Your task to perform on an android device: set the timer Image 0: 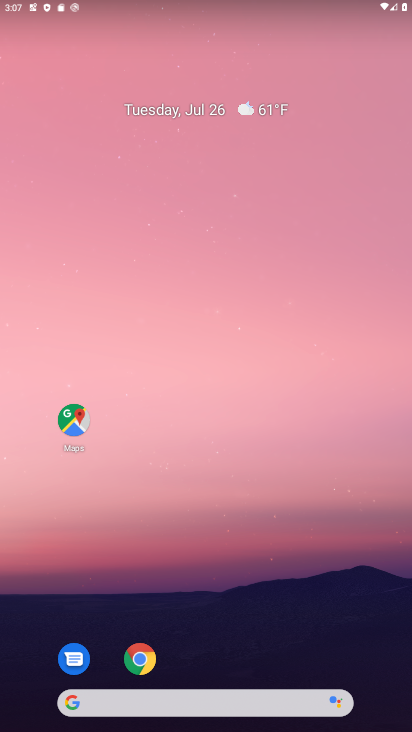
Step 0: drag from (201, 544) to (229, 185)
Your task to perform on an android device: set the timer Image 1: 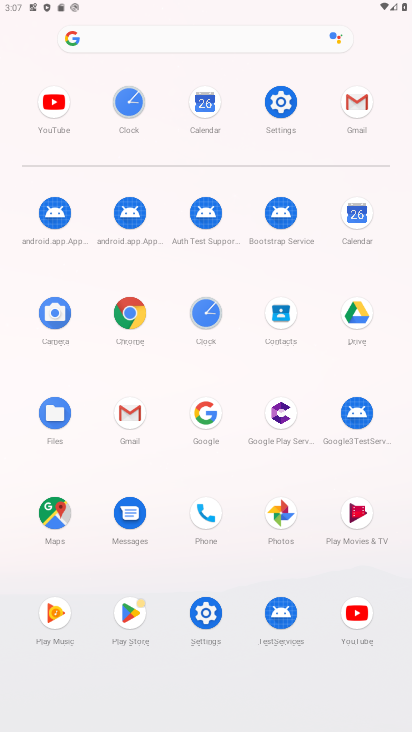
Step 1: click (131, 107)
Your task to perform on an android device: set the timer Image 2: 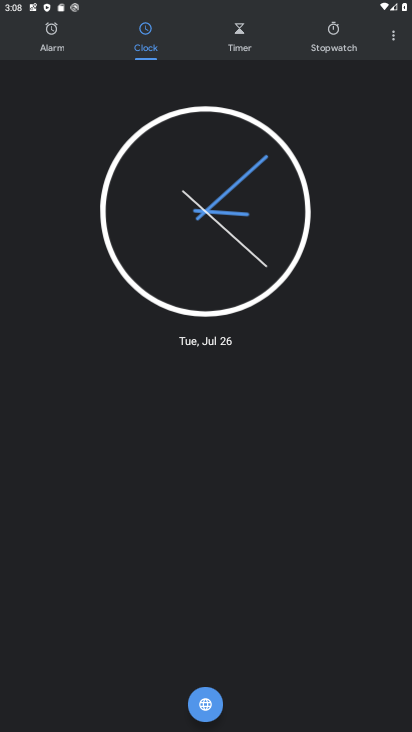
Step 2: click (233, 42)
Your task to perform on an android device: set the timer Image 3: 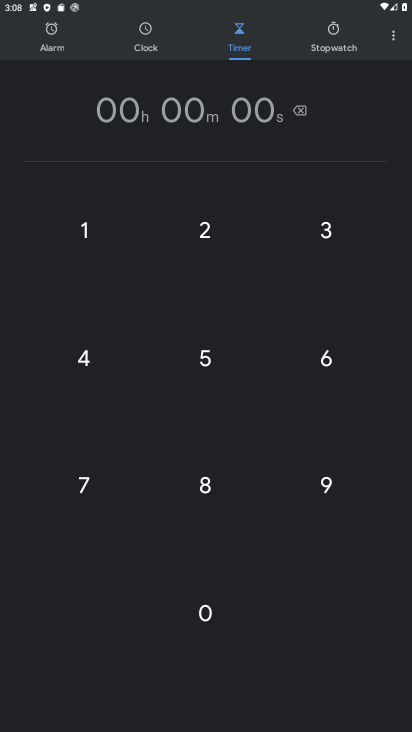
Step 3: click (205, 222)
Your task to perform on an android device: set the timer Image 4: 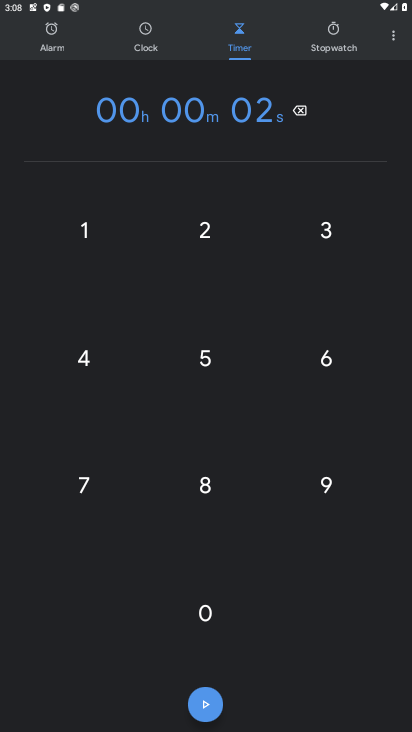
Step 4: click (203, 610)
Your task to perform on an android device: set the timer Image 5: 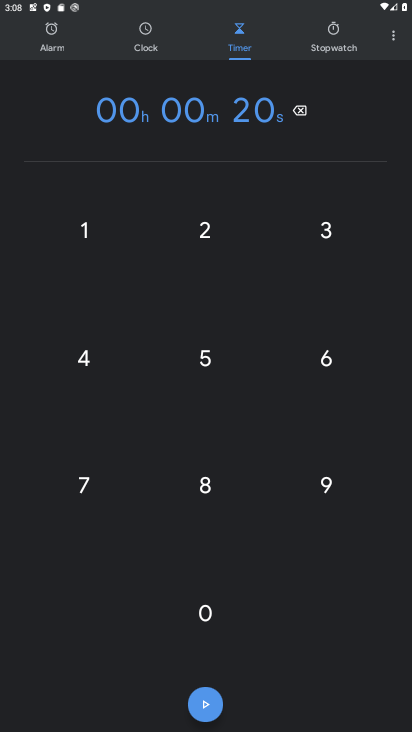
Step 5: click (203, 610)
Your task to perform on an android device: set the timer Image 6: 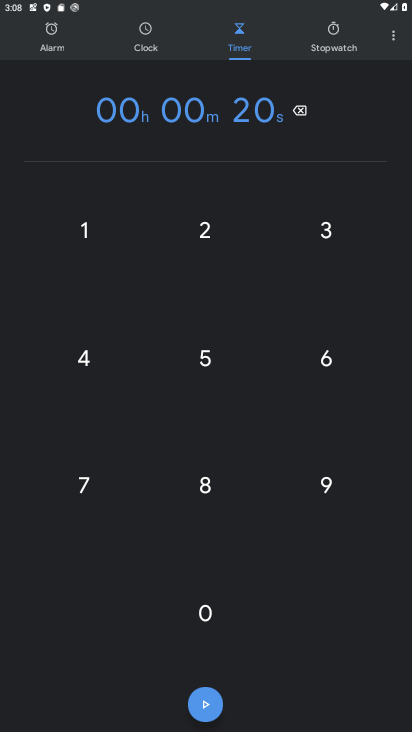
Step 6: click (203, 610)
Your task to perform on an android device: set the timer Image 7: 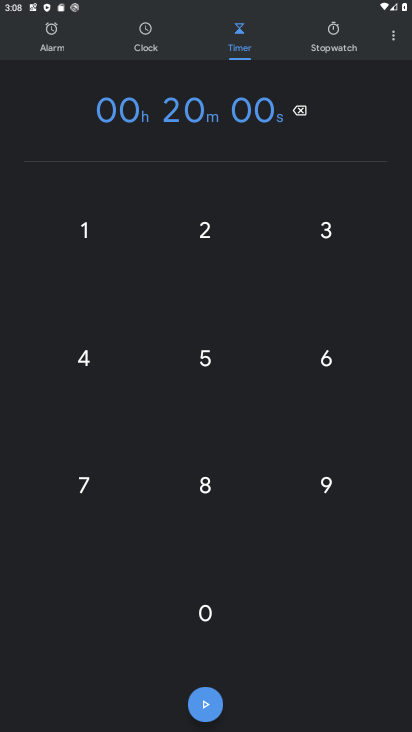
Step 7: task complete